Your task to perform on an android device: Search for "logitech g933" on costco.com, select the first entry, and add it to the cart. Image 0: 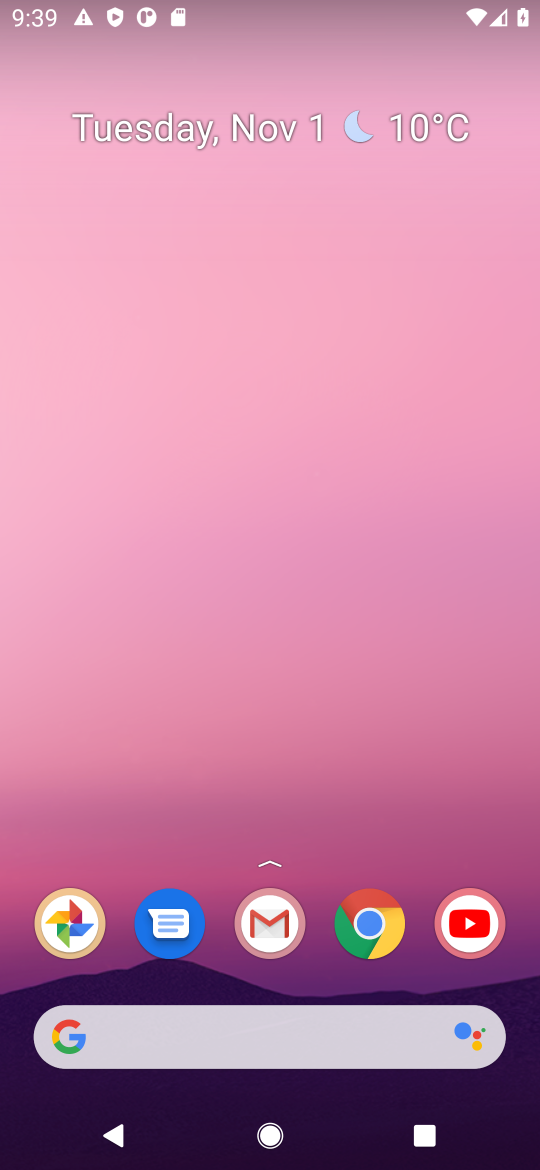
Step 0: drag from (301, 923) to (376, 179)
Your task to perform on an android device: Search for "logitech g933" on costco.com, select the first entry, and add it to the cart. Image 1: 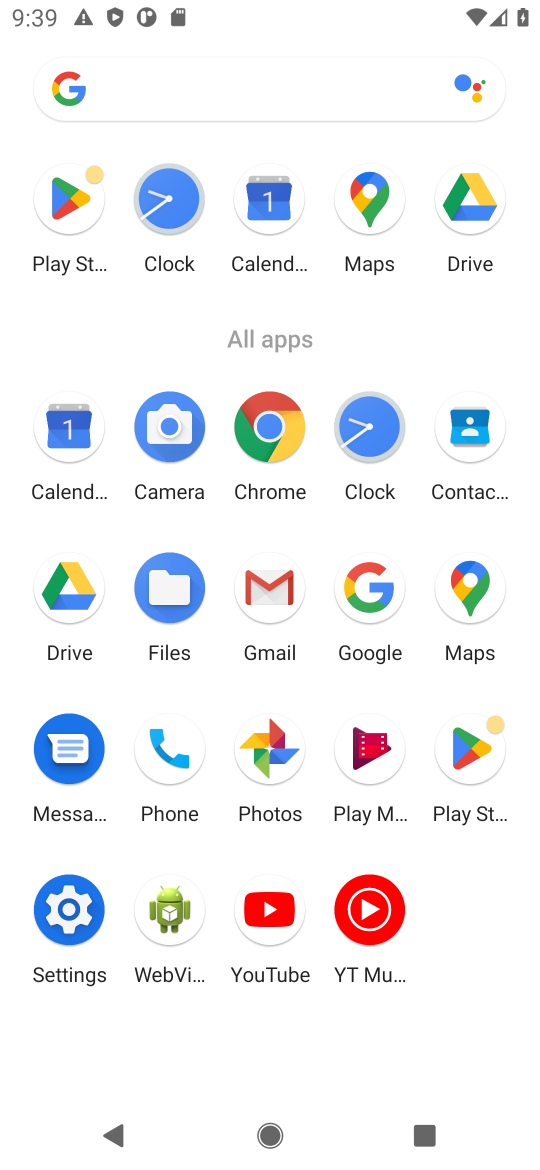
Step 1: click (287, 430)
Your task to perform on an android device: Search for "logitech g933" on costco.com, select the first entry, and add it to the cart. Image 2: 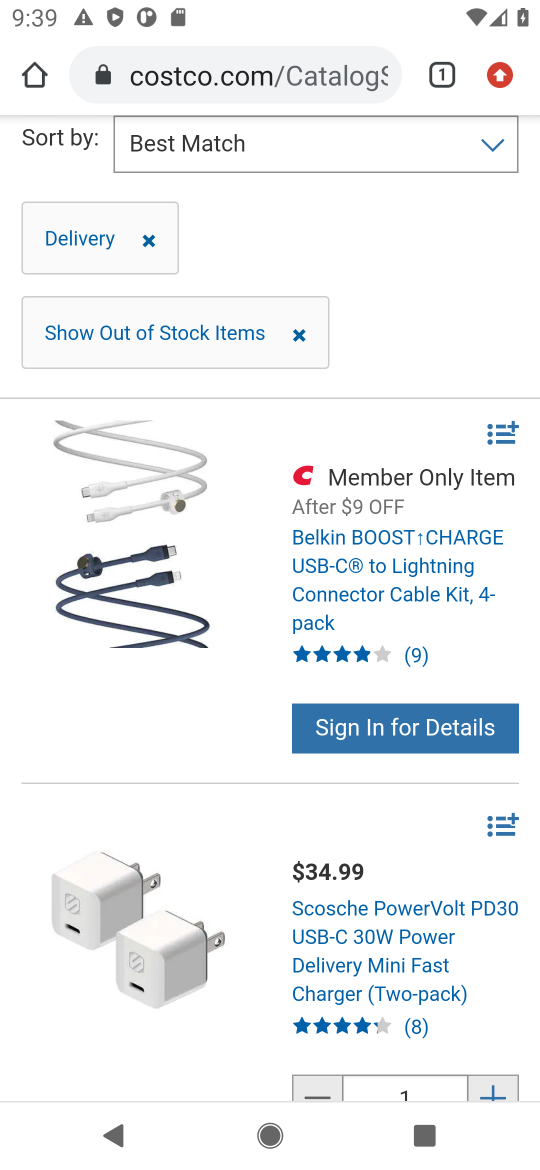
Step 2: click (334, 76)
Your task to perform on an android device: Search for "logitech g933" on costco.com, select the first entry, and add it to the cart. Image 3: 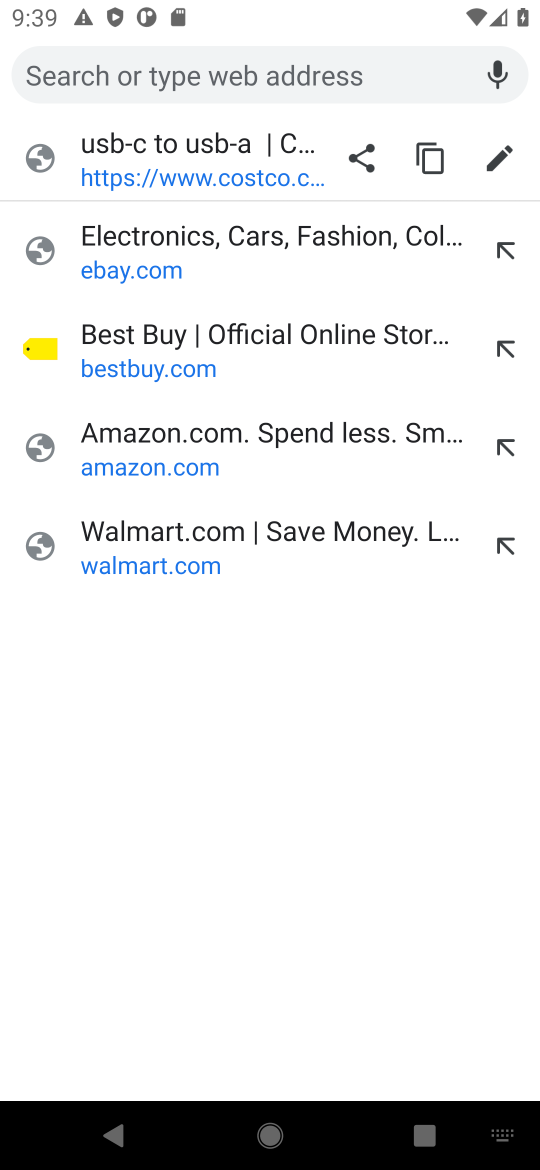
Step 3: type "costco.com"
Your task to perform on an android device: Search for "logitech g933" on costco.com, select the first entry, and add it to the cart. Image 4: 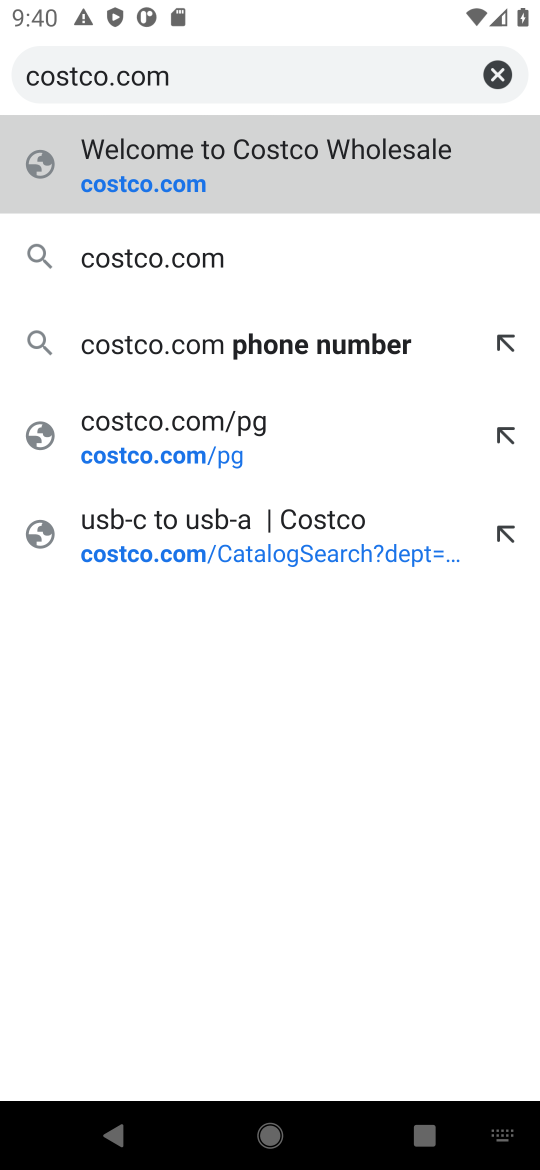
Step 4: press enter
Your task to perform on an android device: Search for "logitech g933" on costco.com, select the first entry, and add it to the cart. Image 5: 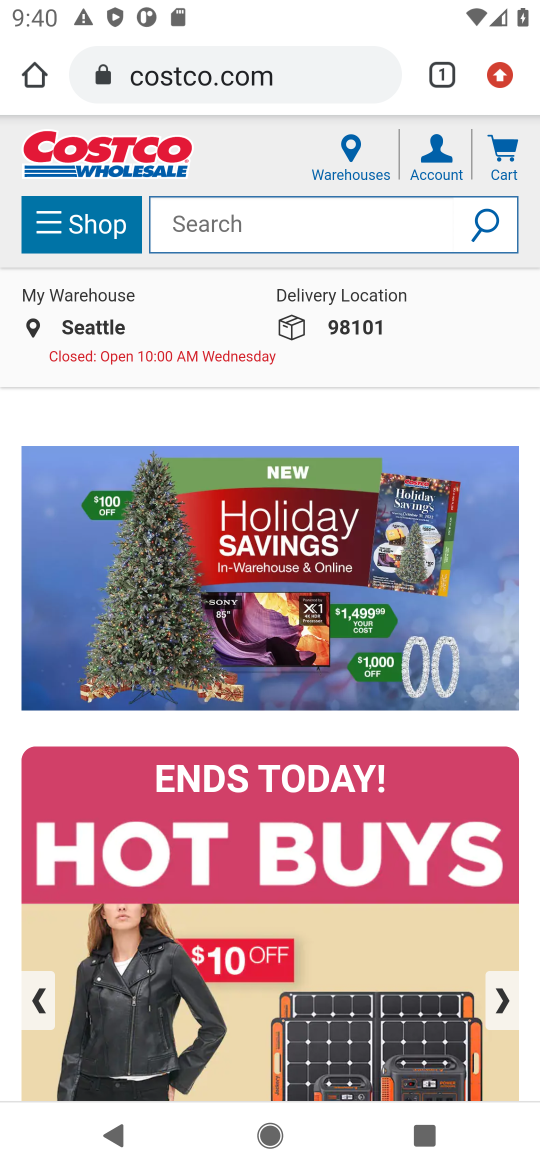
Step 5: click (375, 231)
Your task to perform on an android device: Search for "logitech g933" on costco.com, select the first entry, and add it to the cart. Image 6: 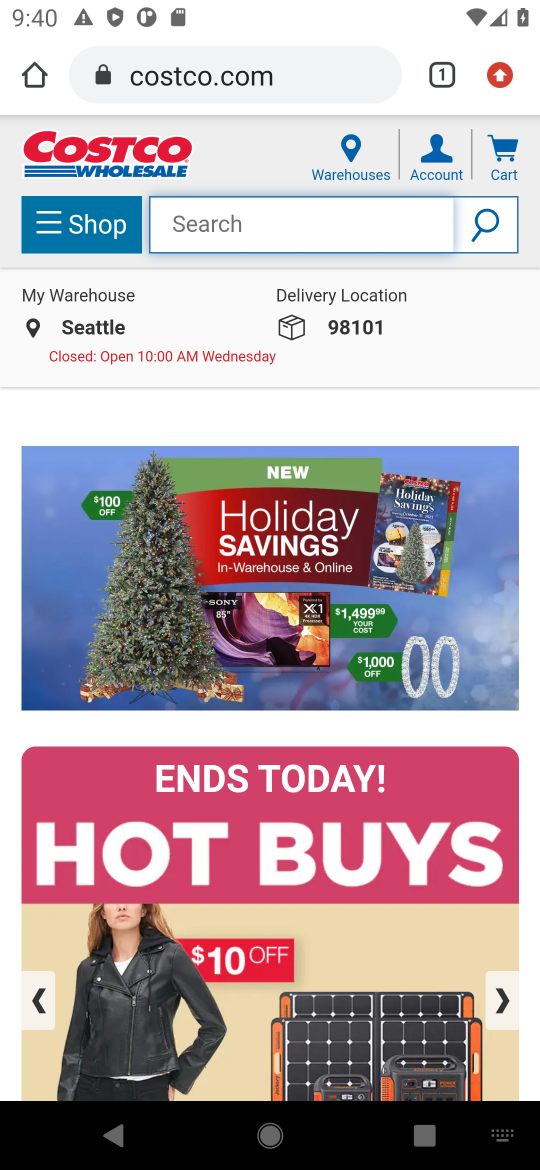
Step 6: type "logitech g933"
Your task to perform on an android device: Search for "logitech g933" on costco.com, select the first entry, and add it to the cart. Image 7: 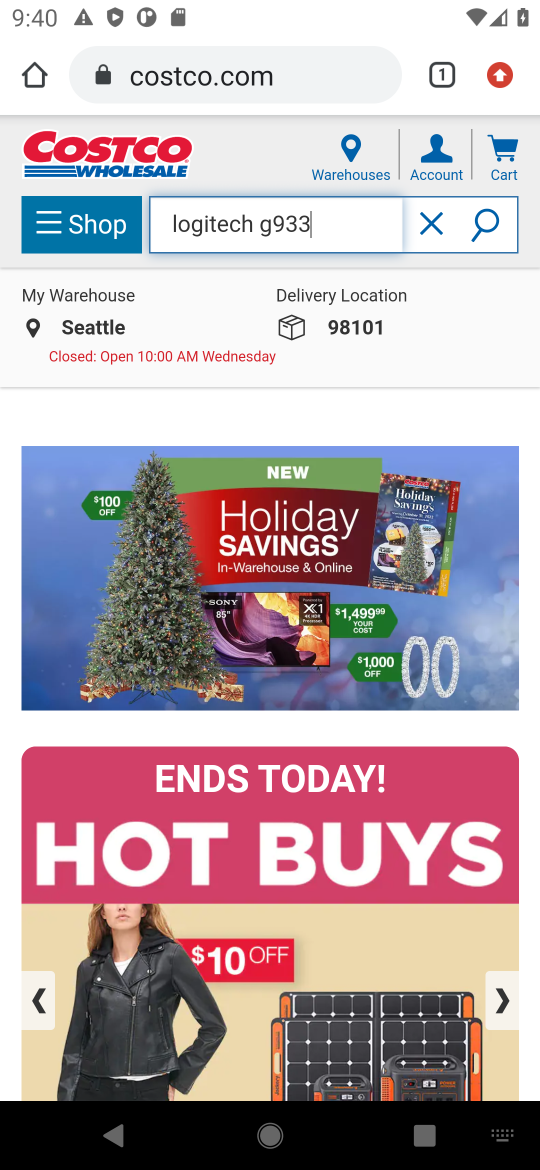
Step 7: press enter
Your task to perform on an android device: Search for "logitech g933" on costco.com, select the first entry, and add it to the cart. Image 8: 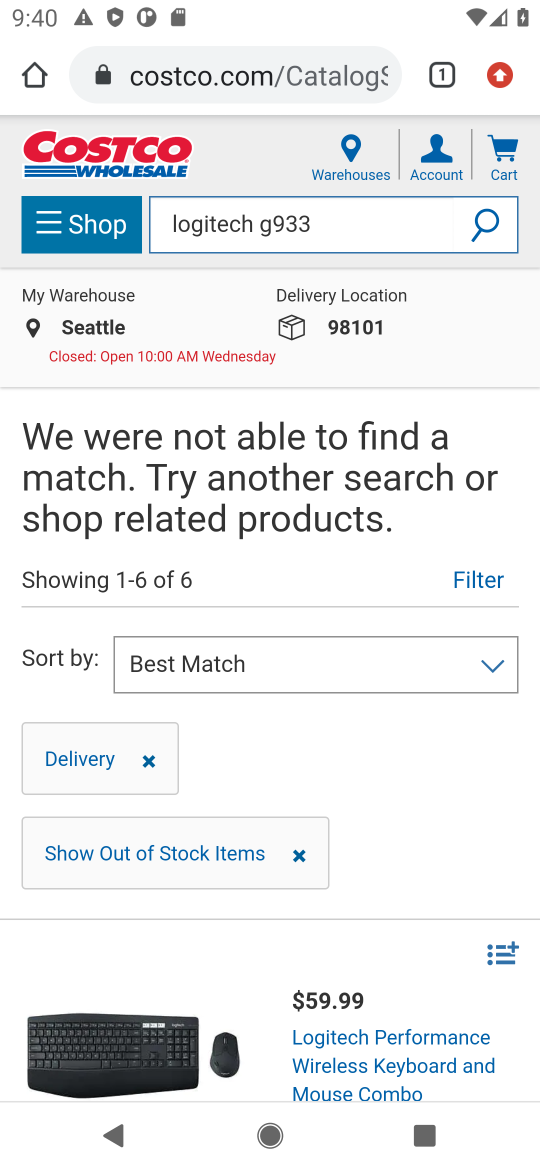
Step 8: task complete